Your task to perform on an android device: turn off airplane mode Image 0: 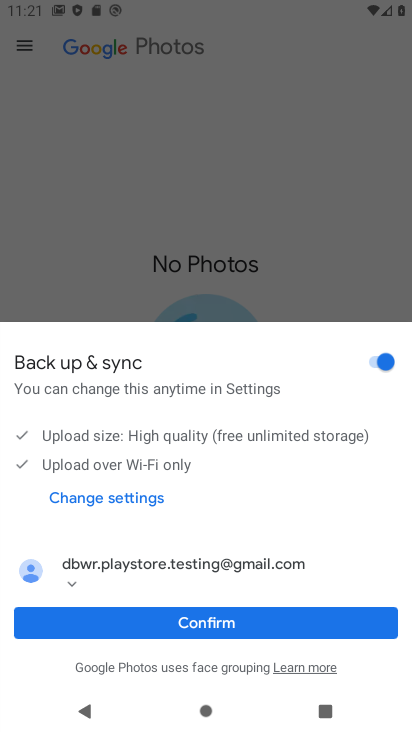
Step 0: press home button
Your task to perform on an android device: turn off airplane mode Image 1: 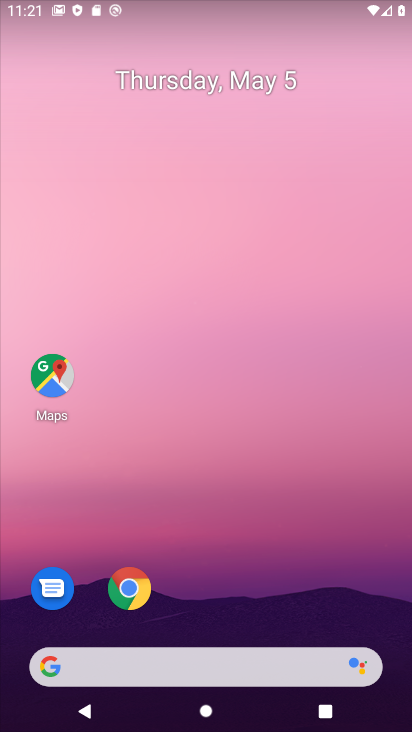
Step 1: drag from (133, 667) to (297, 63)
Your task to perform on an android device: turn off airplane mode Image 2: 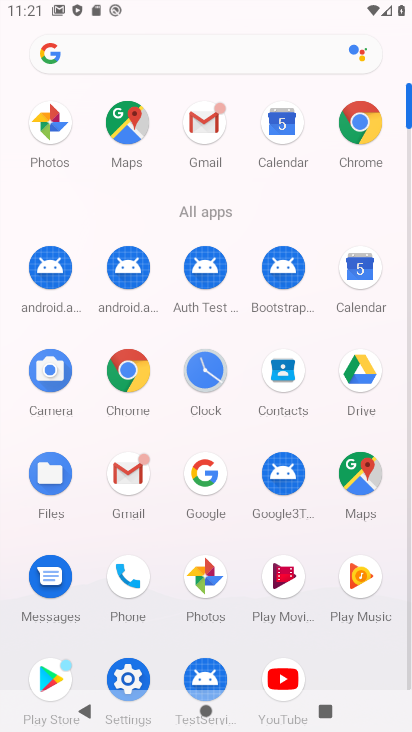
Step 2: click (125, 680)
Your task to perform on an android device: turn off airplane mode Image 3: 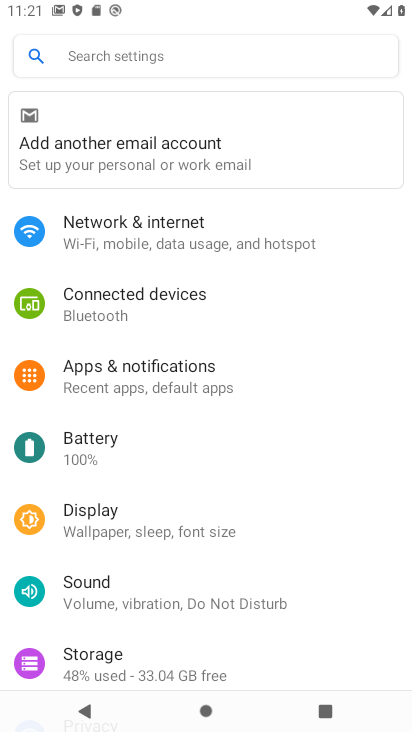
Step 3: click (152, 222)
Your task to perform on an android device: turn off airplane mode Image 4: 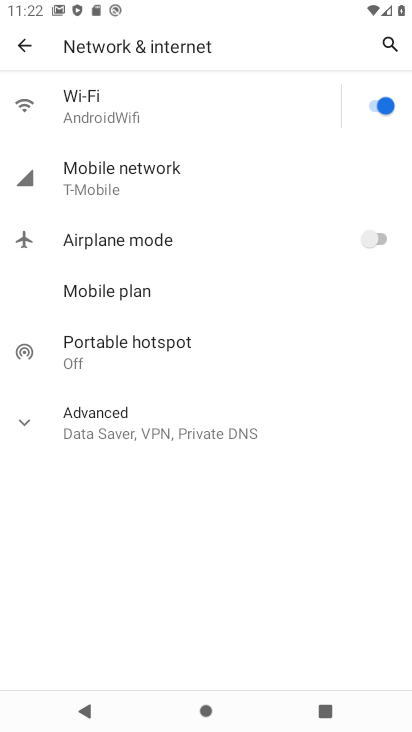
Step 4: task complete